Your task to perform on an android device: uninstall "eBay: The shopping marketplace" Image 0: 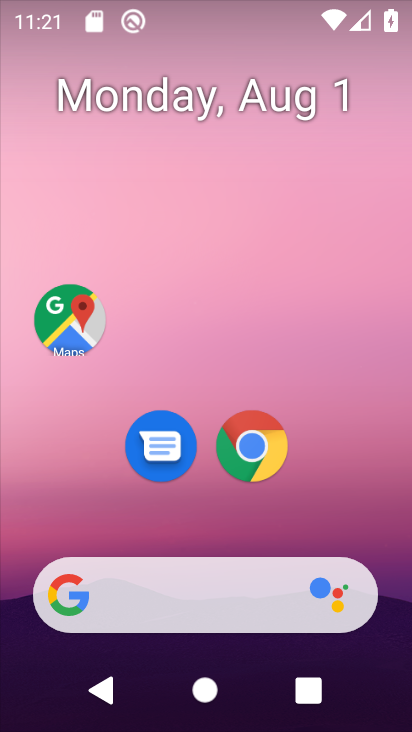
Step 0: drag from (206, 527) to (199, 152)
Your task to perform on an android device: uninstall "eBay: The shopping marketplace" Image 1: 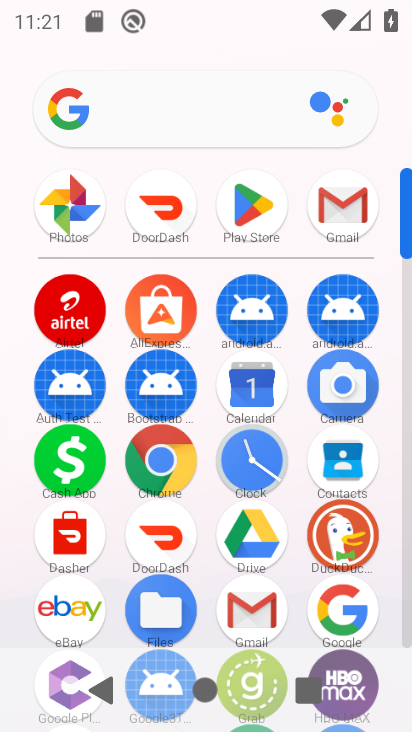
Step 1: click (240, 234)
Your task to perform on an android device: uninstall "eBay: The shopping marketplace" Image 2: 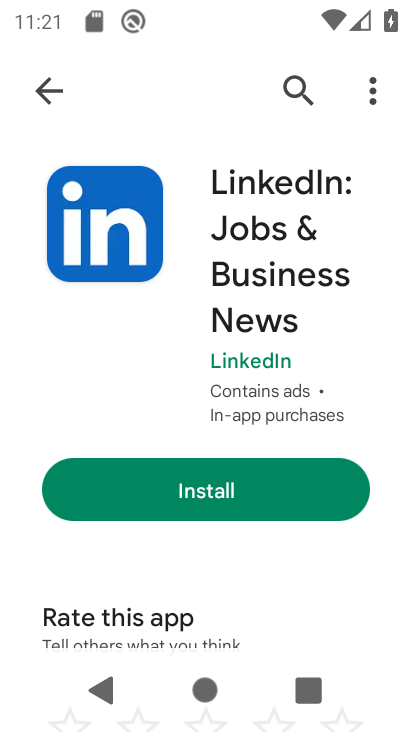
Step 2: click (307, 88)
Your task to perform on an android device: uninstall "eBay: The shopping marketplace" Image 3: 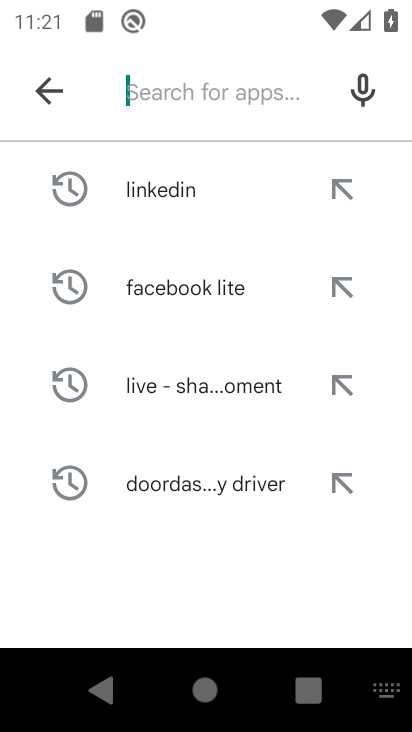
Step 3: type "eBay: The shopping marketplace"
Your task to perform on an android device: uninstall "eBay: The shopping marketplace" Image 4: 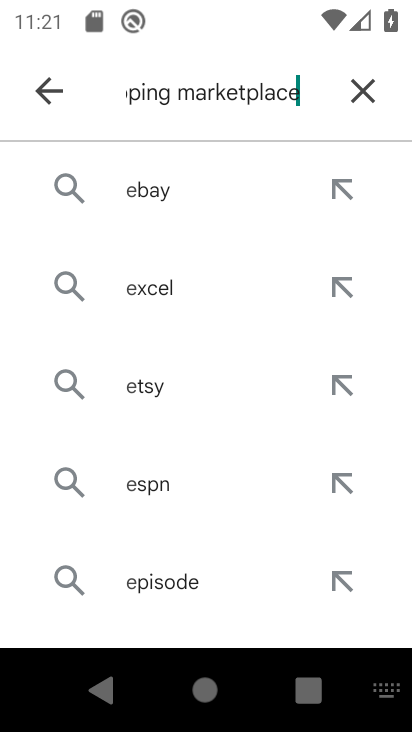
Step 4: type ""
Your task to perform on an android device: uninstall "eBay: The shopping marketplace" Image 5: 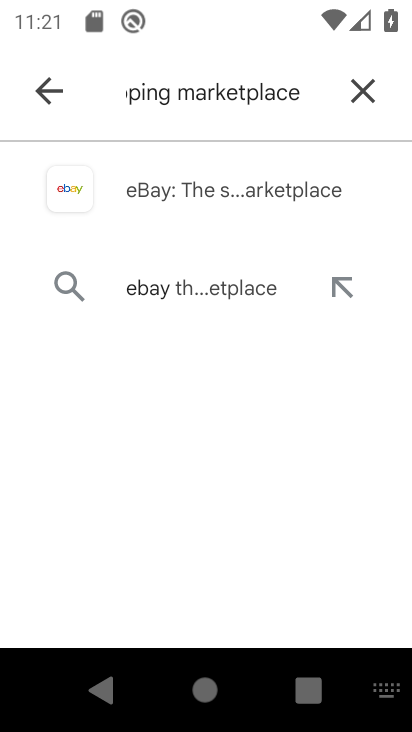
Step 5: click (186, 198)
Your task to perform on an android device: uninstall "eBay: The shopping marketplace" Image 6: 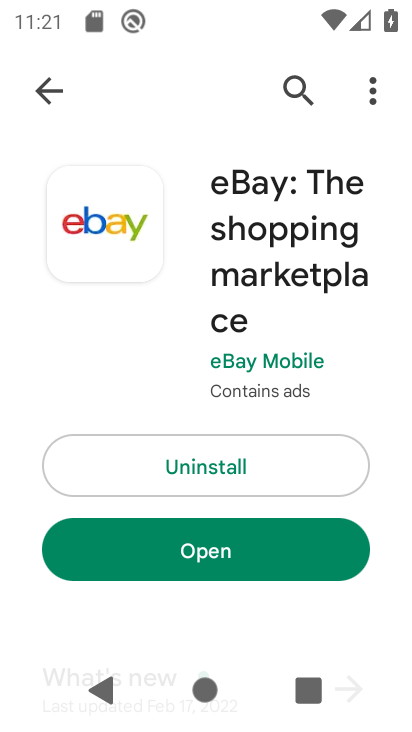
Step 6: click (228, 449)
Your task to perform on an android device: uninstall "eBay: The shopping marketplace" Image 7: 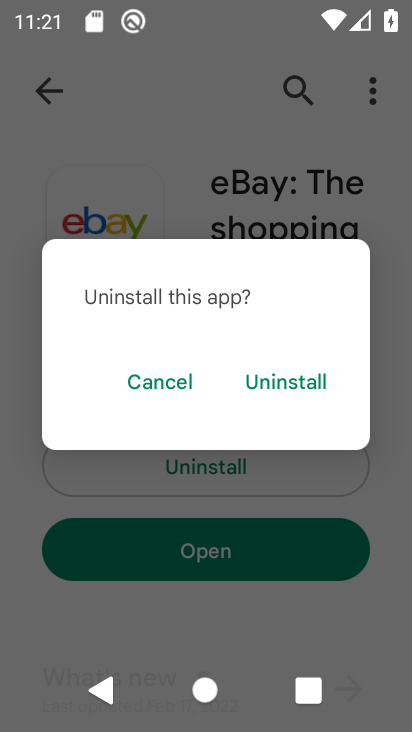
Step 7: click (274, 380)
Your task to perform on an android device: uninstall "eBay: The shopping marketplace" Image 8: 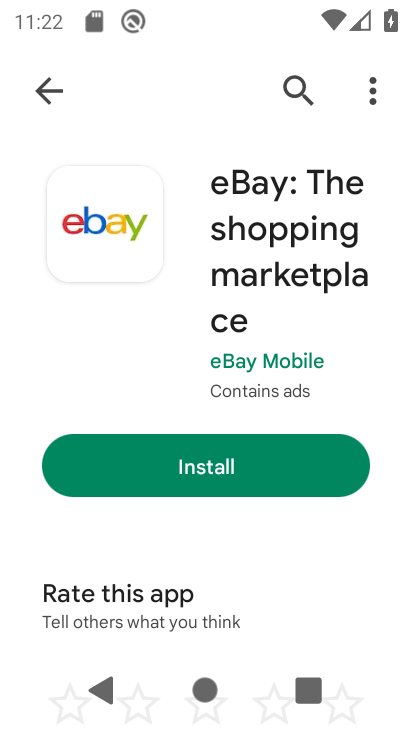
Step 8: task complete